Your task to perform on an android device: snooze an email in the gmail app Image 0: 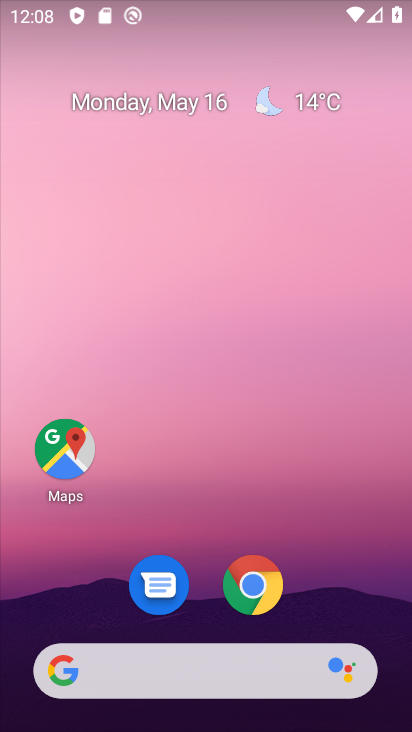
Step 0: drag from (307, 511) to (365, 1)
Your task to perform on an android device: snooze an email in the gmail app Image 1: 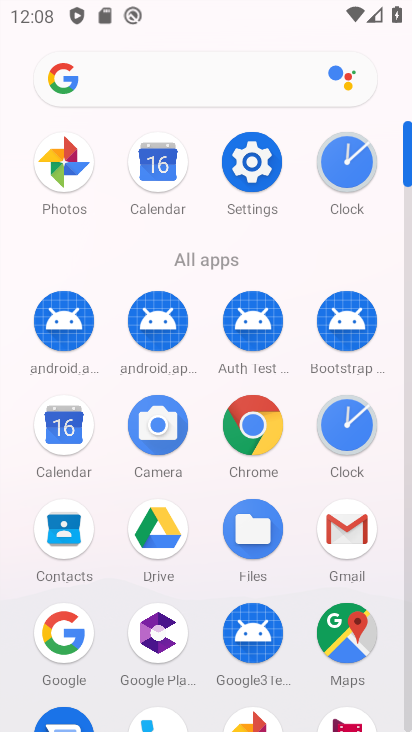
Step 1: click (347, 523)
Your task to perform on an android device: snooze an email in the gmail app Image 2: 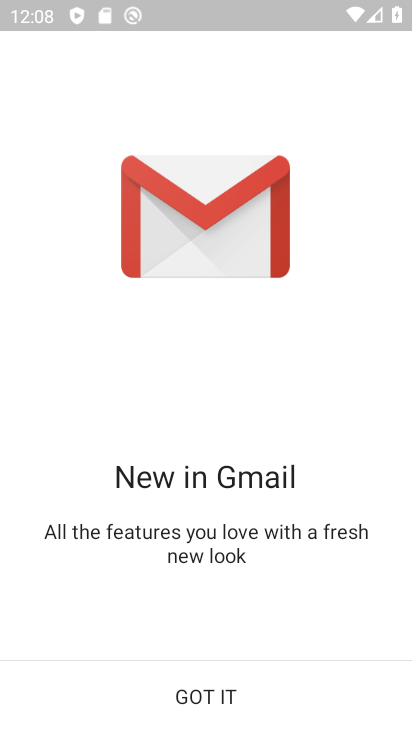
Step 2: click (290, 694)
Your task to perform on an android device: snooze an email in the gmail app Image 3: 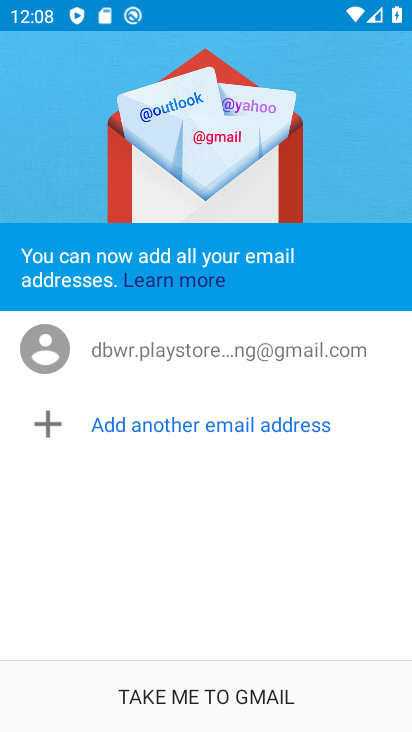
Step 3: click (284, 692)
Your task to perform on an android device: snooze an email in the gmail app Image 4: 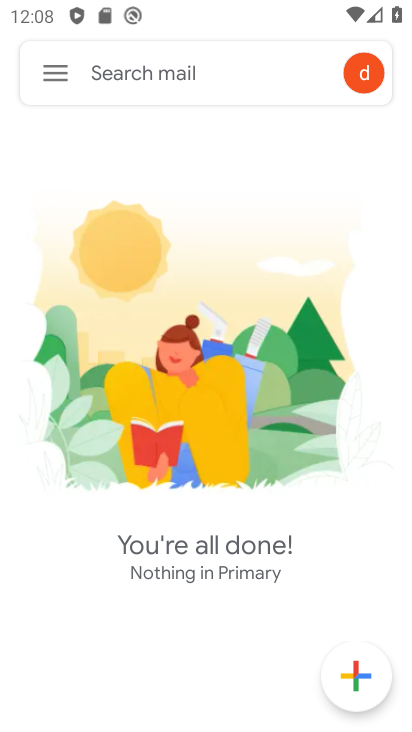
Step 4: click (56, 73)
Your task to perform on an android device: snooze an email in the gmail app Image 5: 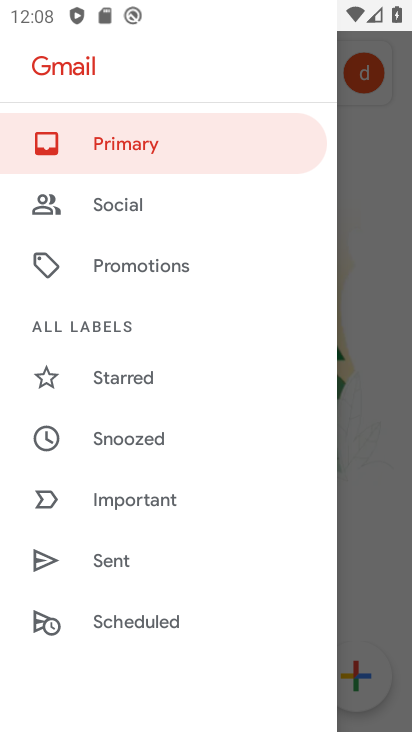
Step 5: drag from (187, 502) to (237, 101)
Your task to perform on an android device: snooze an email in the gmail app Image 6: 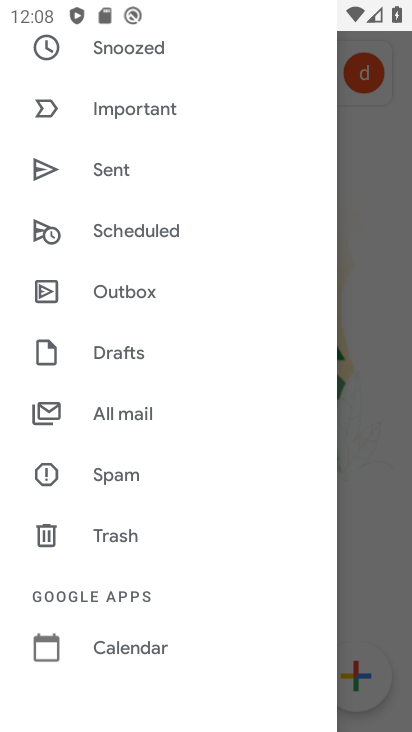
Step 6: click (162, 410)
Your task to perform on an android device: snooze an email in the gmail app Image 7: 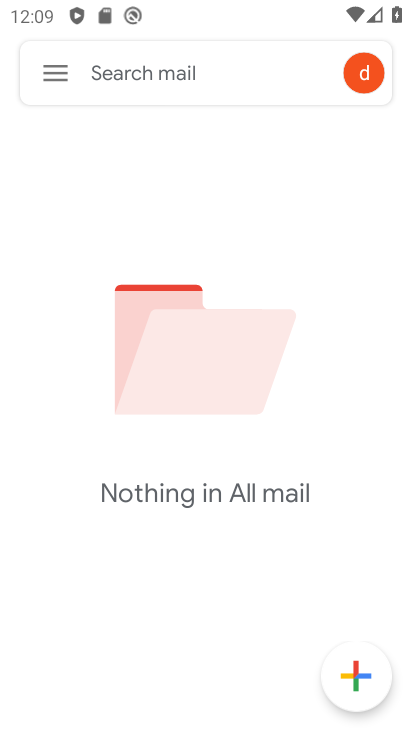
Step 7: task complete